Your task to perform on an android device: Go to location settings Image 0: 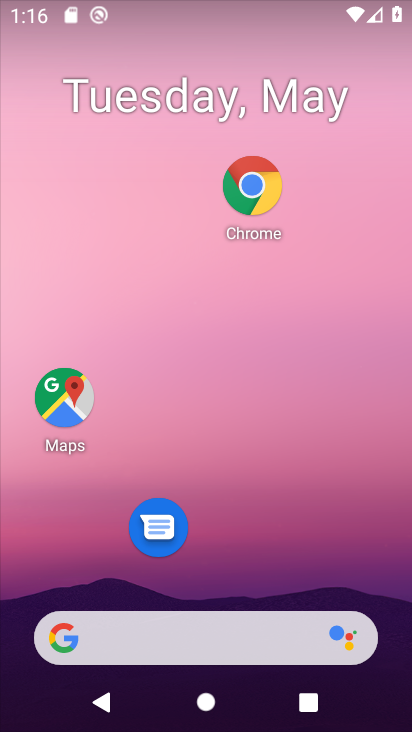
Step 0: drag from (278, 508) to (191, 97)
Your task to perform on an android device: Go to location settings Image 1: 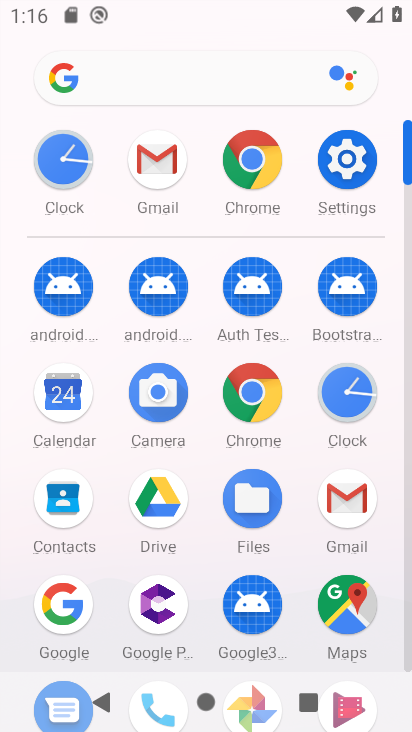
Step 1: click (350, 158)
Your task to perform on an android device: Go to location settings Image 2: 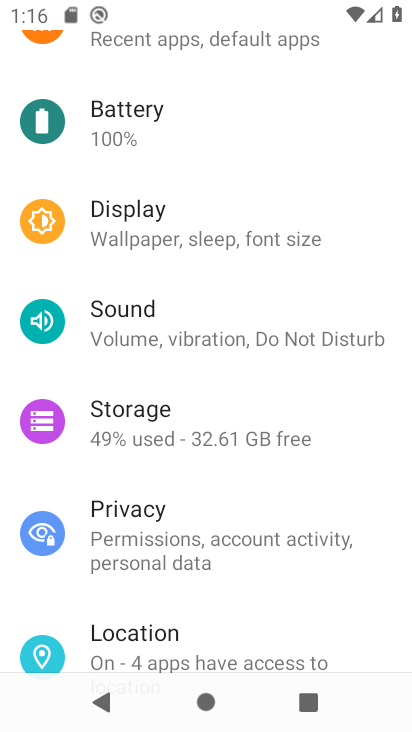
Step 2: click (133, 632)
Your task to perform on an android device: Go to location settings Image 3: 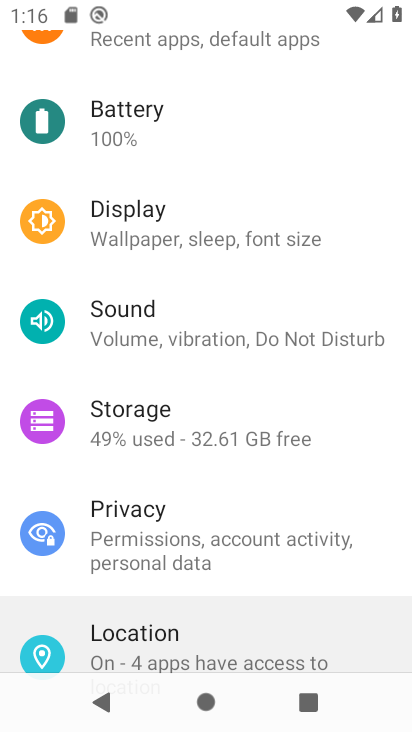
Step 3: click (154, 625)
Your task to perform on an android device: Go to location settings Image 4: 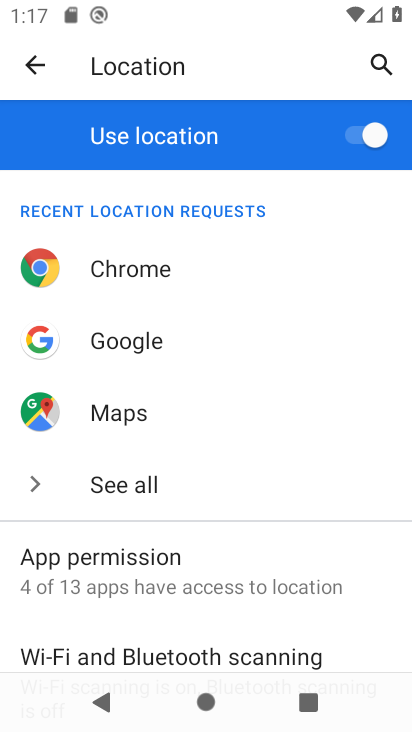
Step 4: task complete